Your task to perform on an android device: See recent photos Image 0: 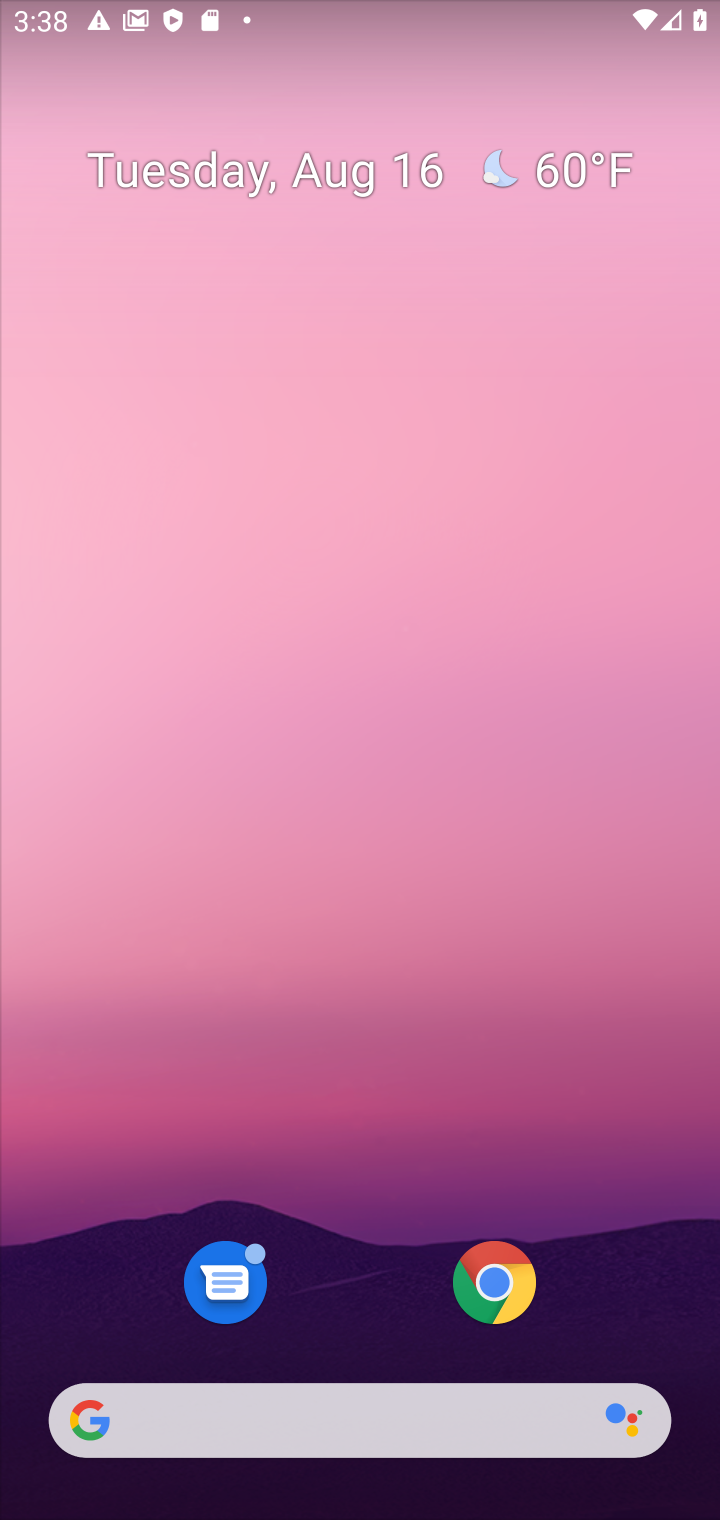
Step 0: drag from (441, 281) to (434, 198)
Your task to perform on an android device: See recent photos Image 1: 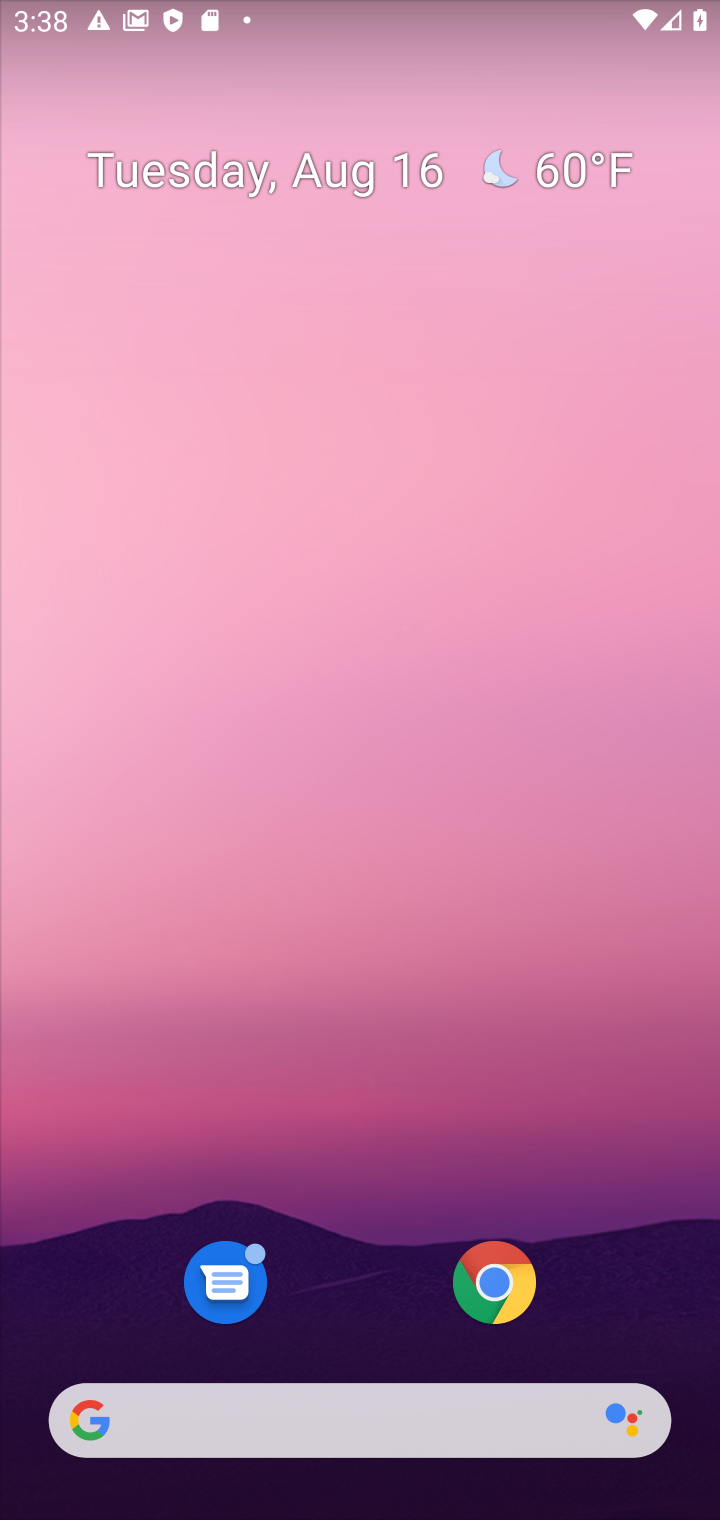
Step 1: drag from (312, 1268) to (533, 5)
Your task to perform on an android device: See recent photos Image 2: 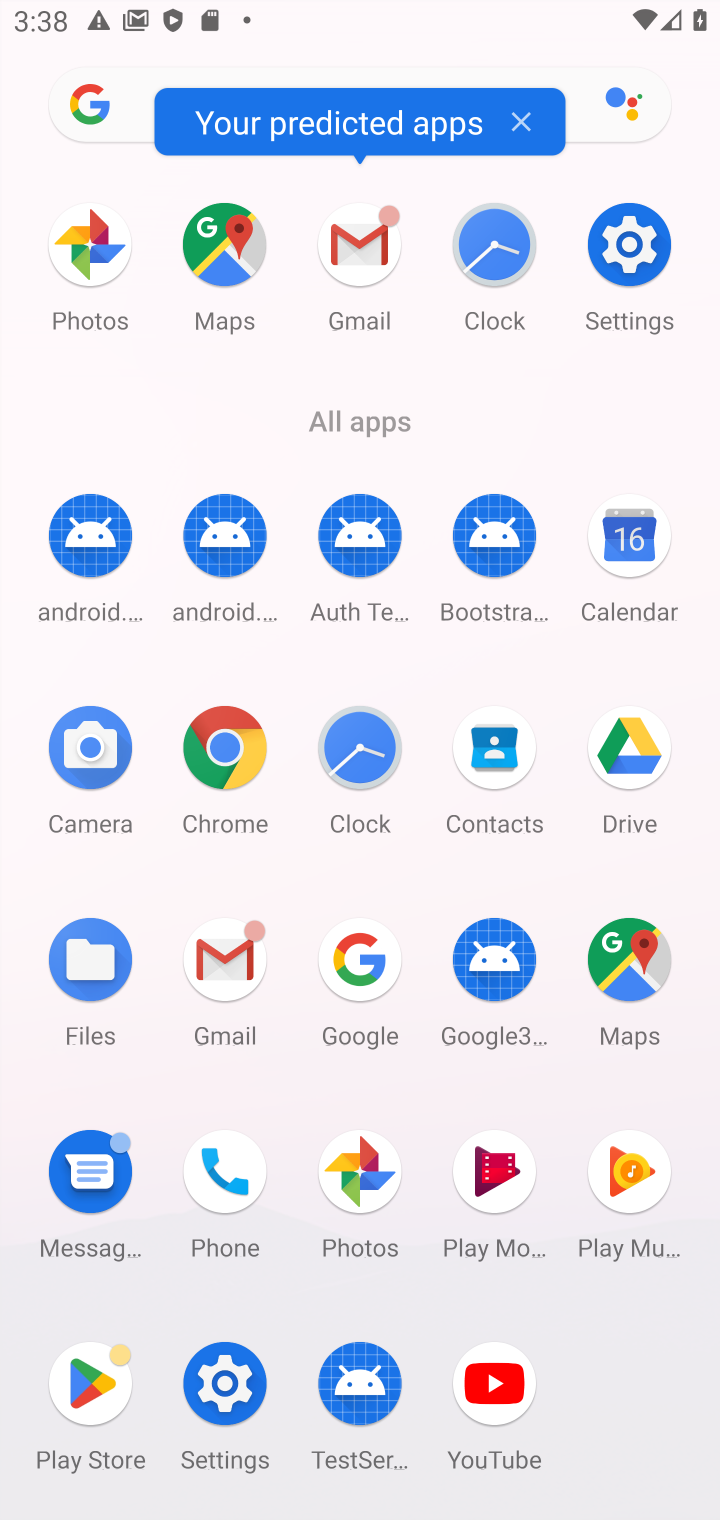
Step 2: click (360, 1182)
Your task to perform on an android device: See recent photos Image 3: 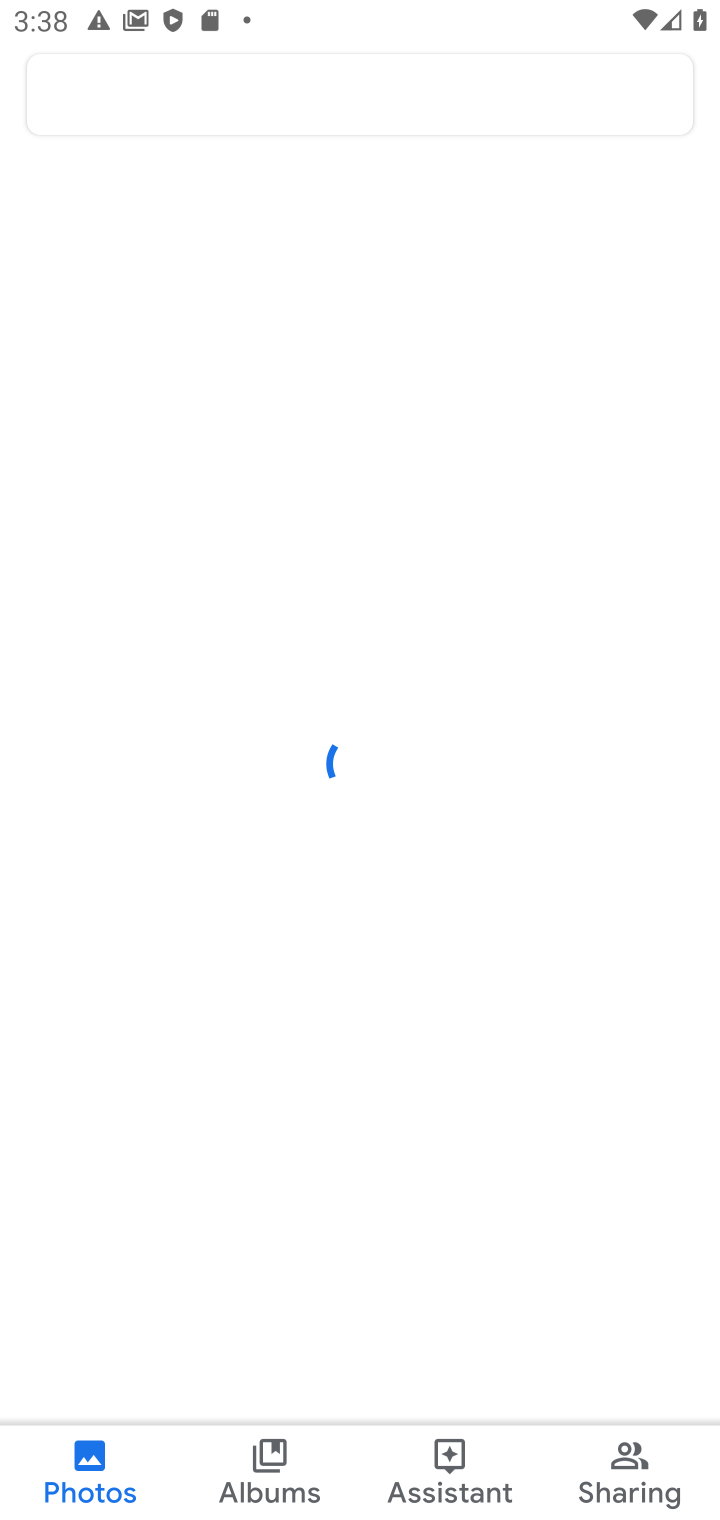
Step 3: click (65, 1502)
Your task to perform on an android device: See recent photos Image 4: 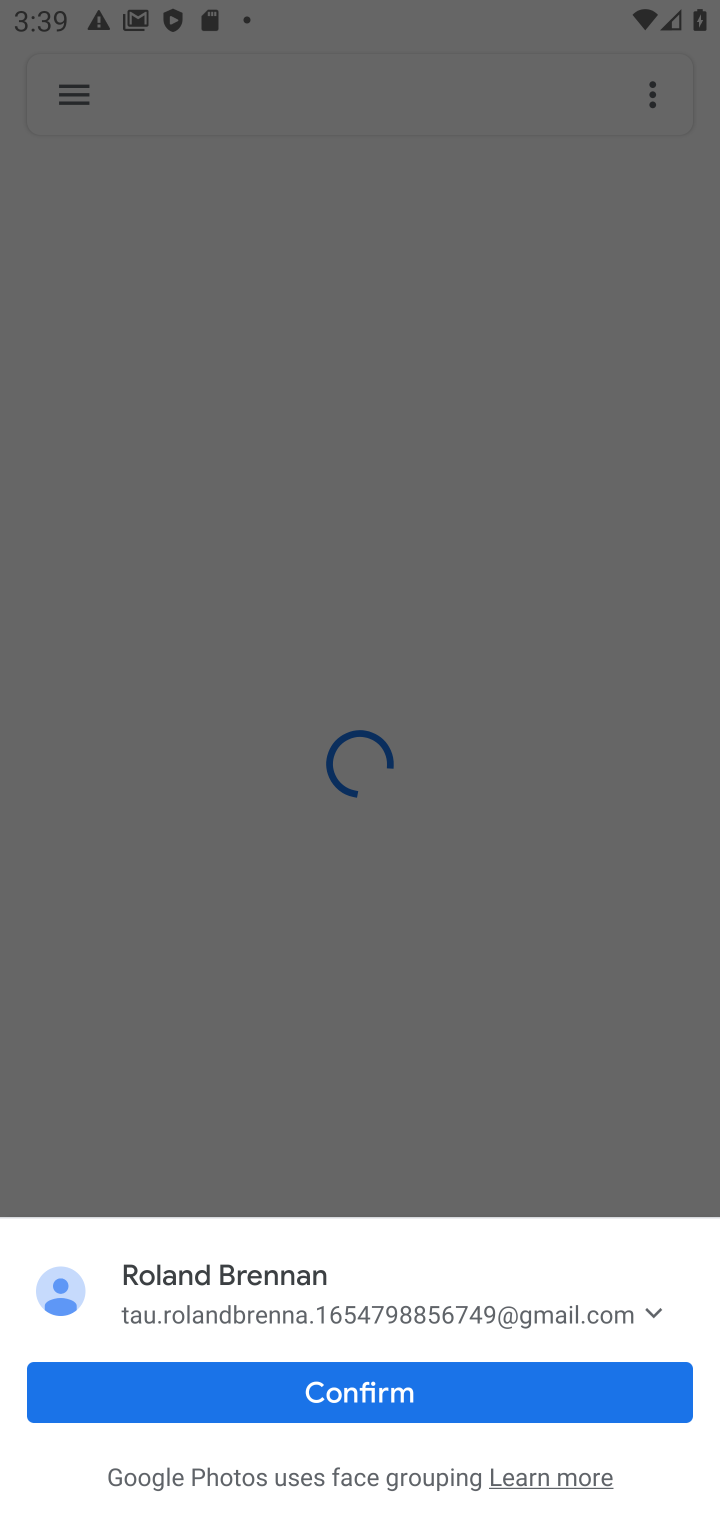
Step 4: click (427, 1367)
Your task to perform on an android device: See recent photos Image 5: 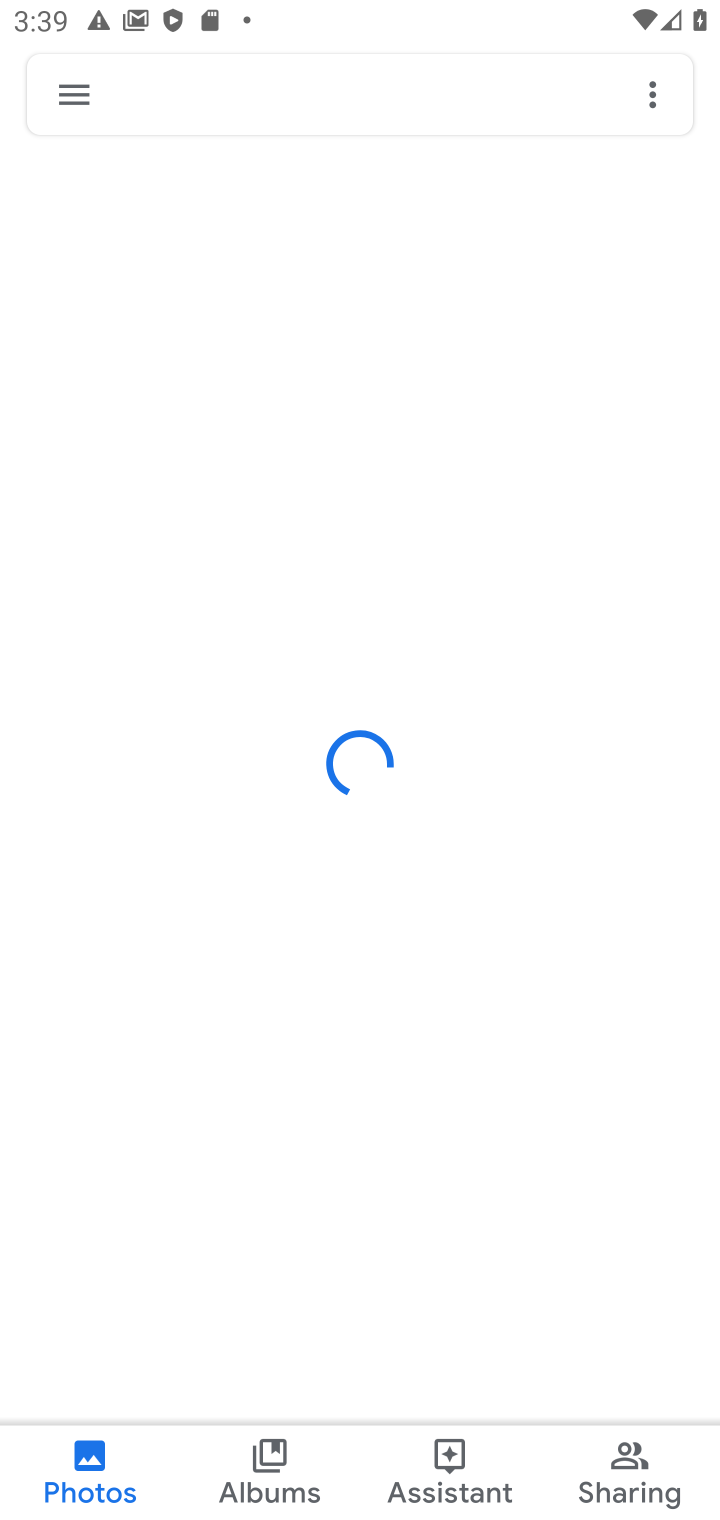
Step 5: click (88, 1448)
Your task to perform on an android device: See recent photos Image 6: 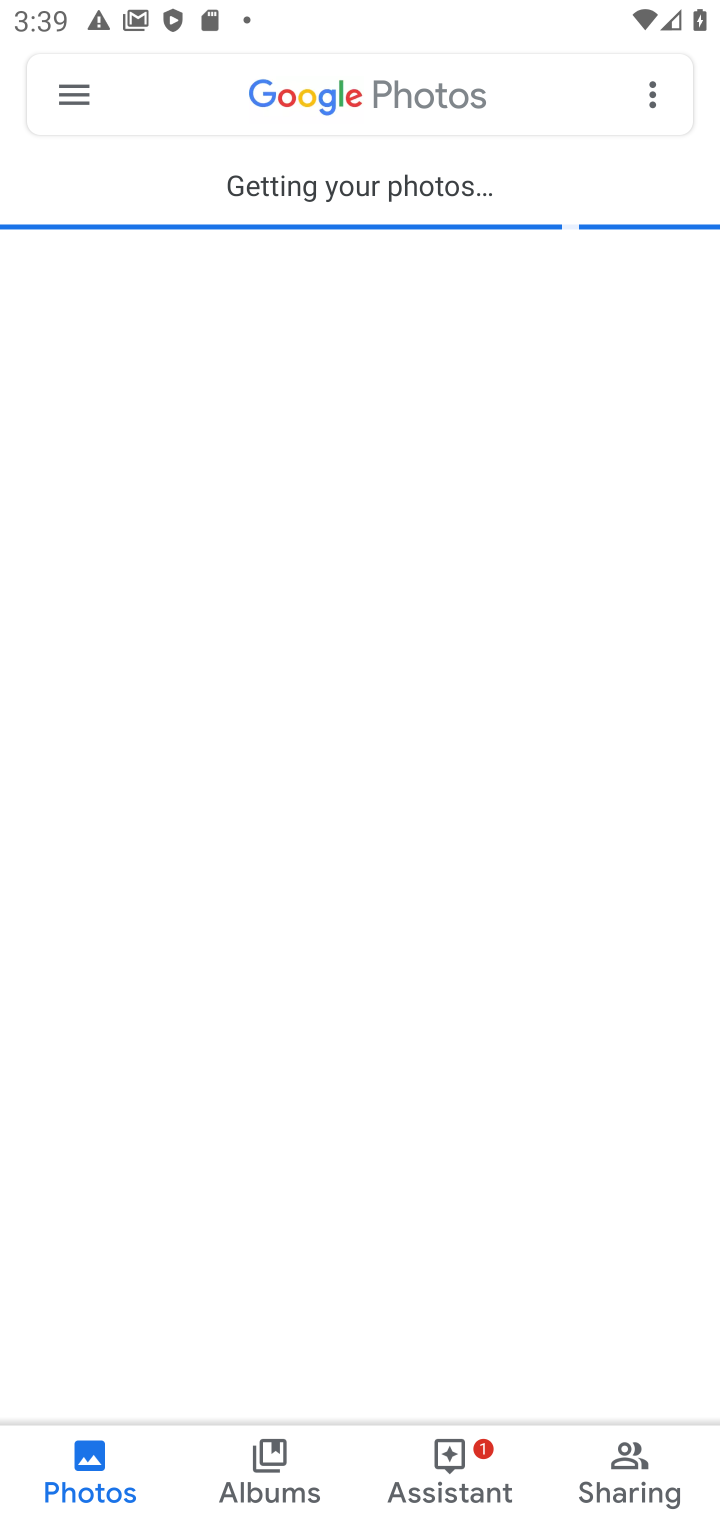
Step 6: task complete